Your task to perform on an android device: refresh tabs in the chrome app Image 0: 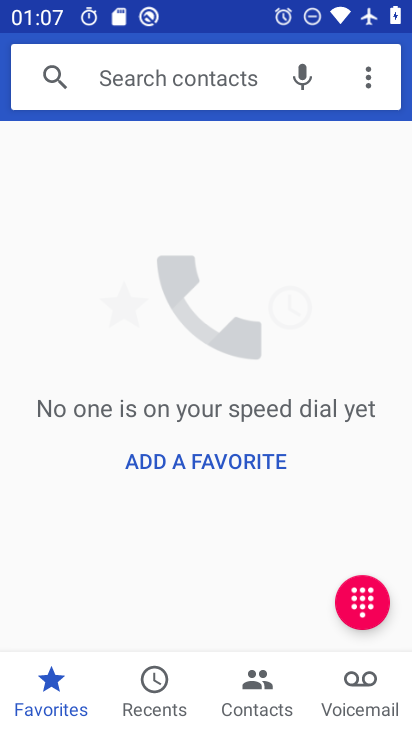
Step 0: press home button
Your task to perform on an android device: refresh tabs in the chrome app Image 1: 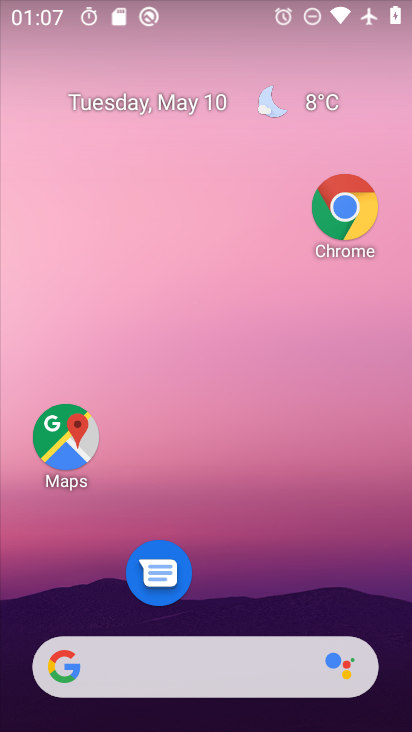
Step 1: click (341, 211)
Your task to perform on an android device: refresh tabs in the chrome app Image 2: 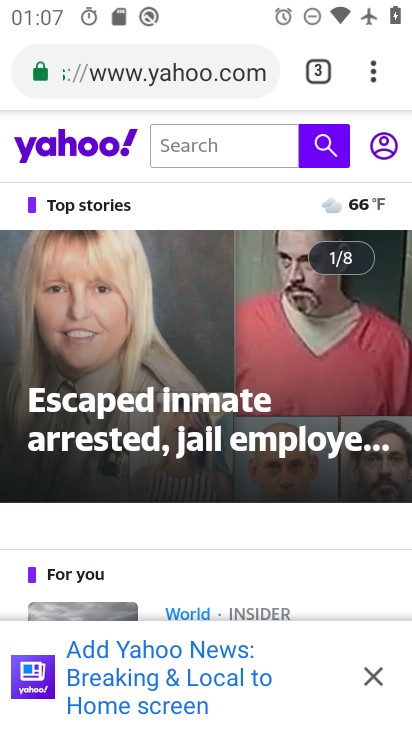
Step 2: click (377, 68)
Your task to perform on an android device: refresh tabs in the chrome app Image 3: 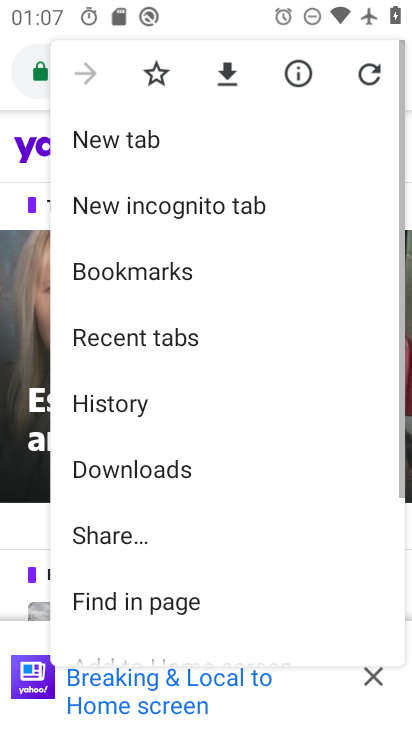
Step 3: click (369, 76)
Your task to perform on an android device: refresh tabs in the chrome app Image 4: 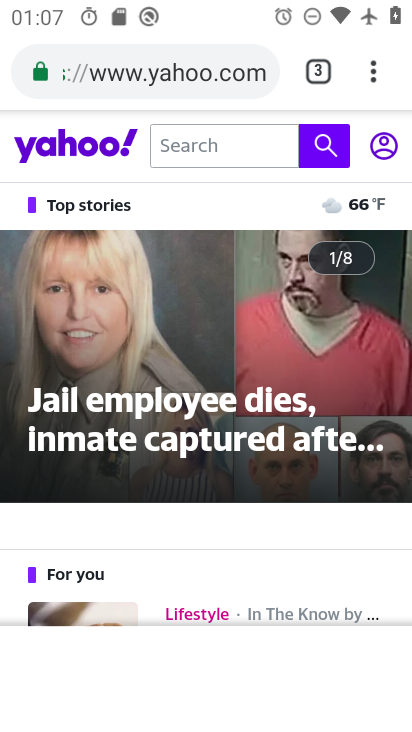
Step 4: task complete